Your task to perform on an android device: read, delete, or share a saved page in the chrome app Image 0: 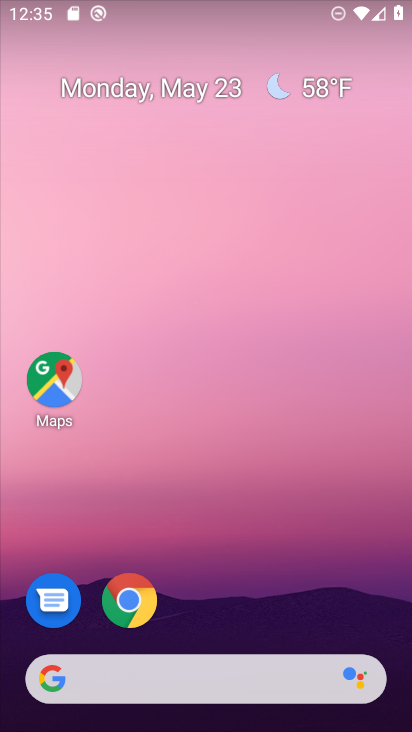
Step 0: drag from (305, 551) to (365, 2)
Your task to perform on an android device: read, delete, or share a saved page in the chrome app Image 1: 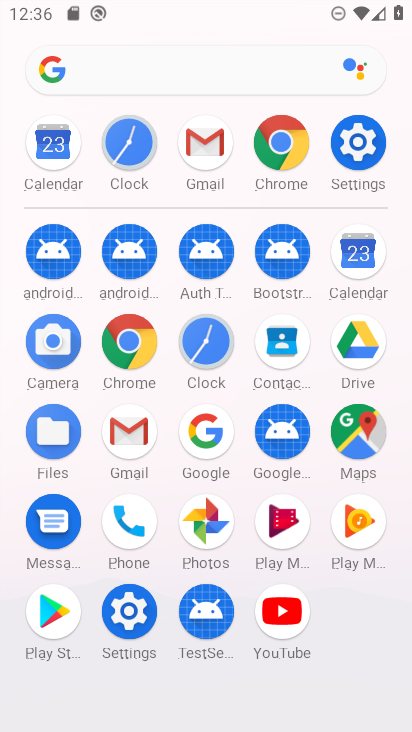
Step 1: click (285, 130)
Your task to perform on an android device: read, delete, or share a saved page in the chrome app Image 2: 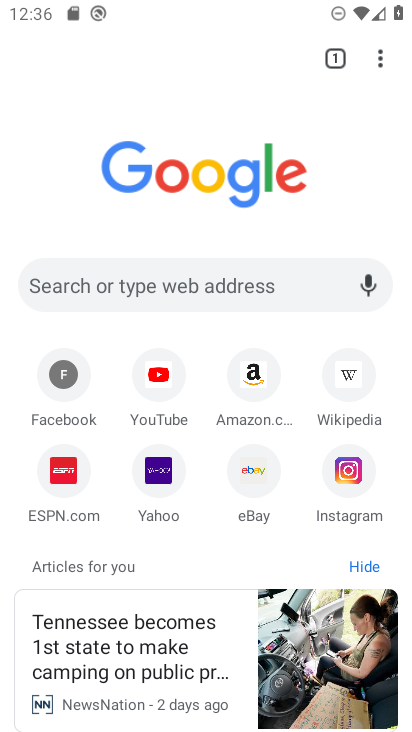
Step 2: task complete